Your task to perform on an android device: read, delete, or share a saved page in the chrome app Image 0: 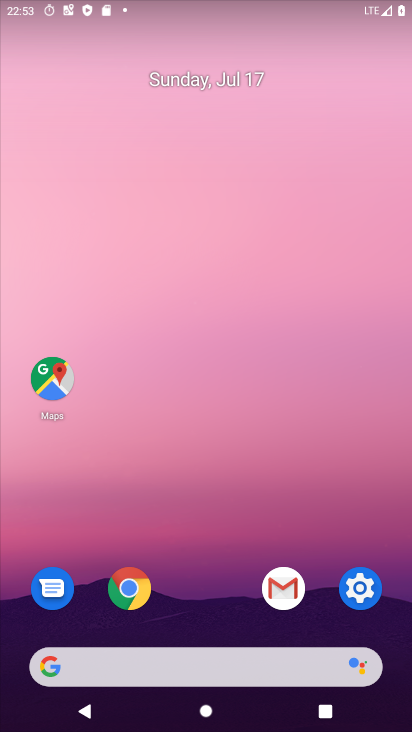
Step 0: press home button
Your task to perform on an android device: read, delete, or share a saved page in the chrome app Image 1: 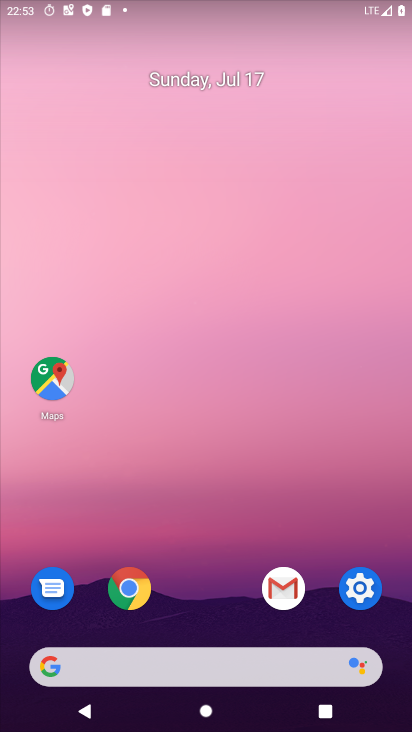
Step 1: click (149, 593)
Your task to perform on an android device: read, delete, or share a saved page in the chrome app Image 2: 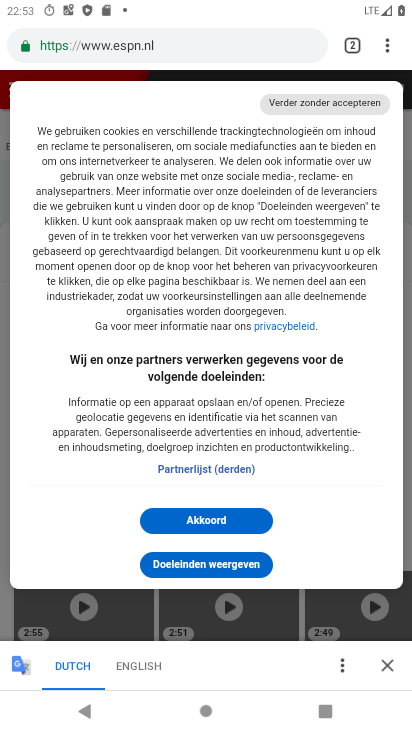
Step 2: click (385, 48)
Your task to perform on an android device: read, delete, or share a saved page in the chrome app Image 3: 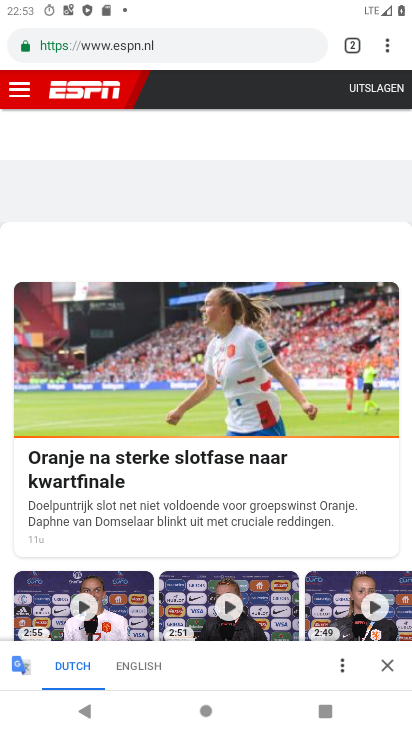
Step 3: click (388, 49)
Your task to perform on an android device: read, delete, or share a saved page in the chrome app Image 4: 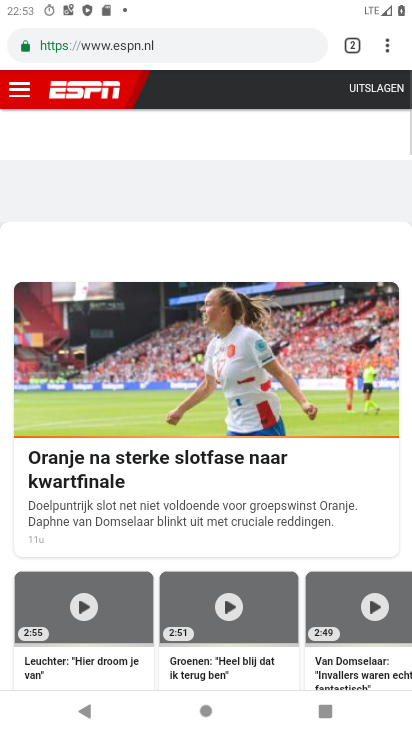
Step 4: click (388, 44)
Your task to perform on an android device: read, delete, or share a saved page in the chrome app Image 5: 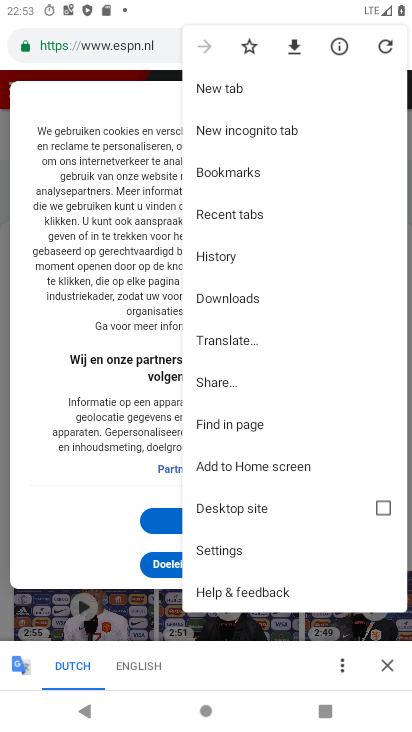
Step 5: click (238, 382)
Your task to perform on an android device: read, delete, or share a saved page in the chrome app Image 6: 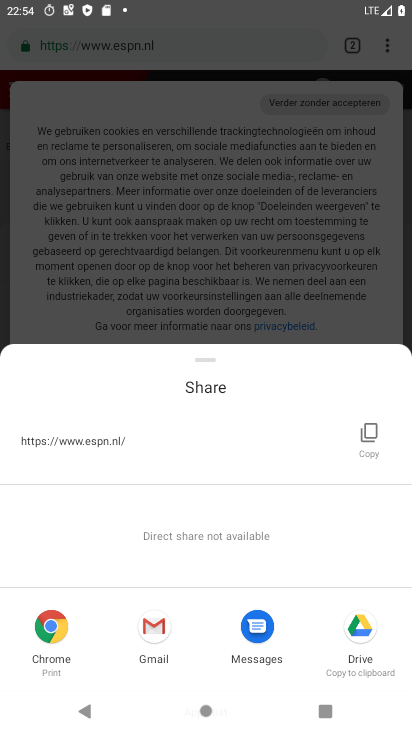
Step 6: task complete